Your task to perform on an android device: Go to Google maps Image 0: 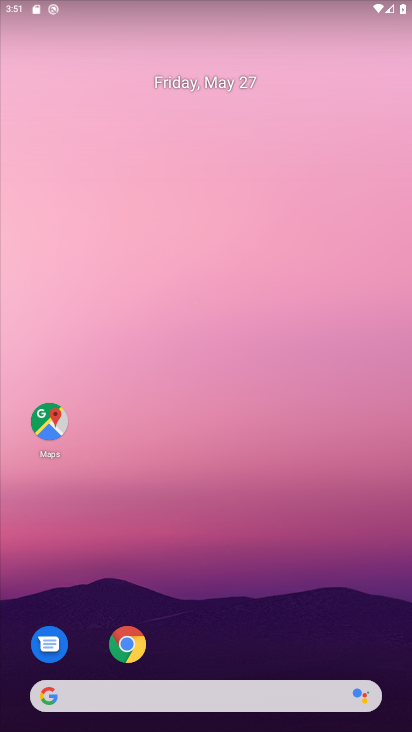
Step 0: click (54, 419)
Your task to perform on an android device: Go to Google maps Image 1: 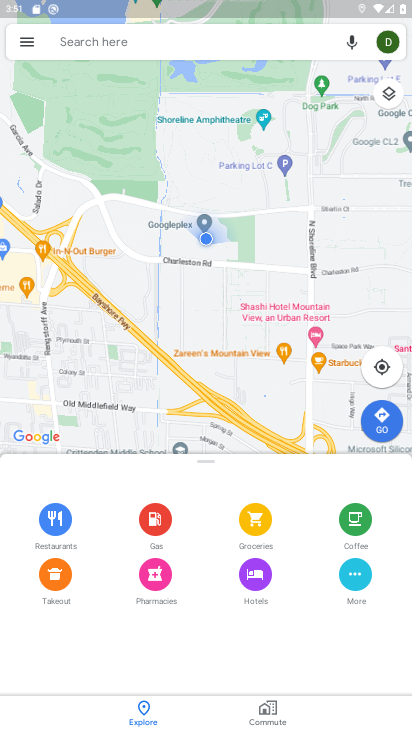
Step 1: task complete